Your task to perform on an android device: turn off priority inbox in the gmail app Image 0: 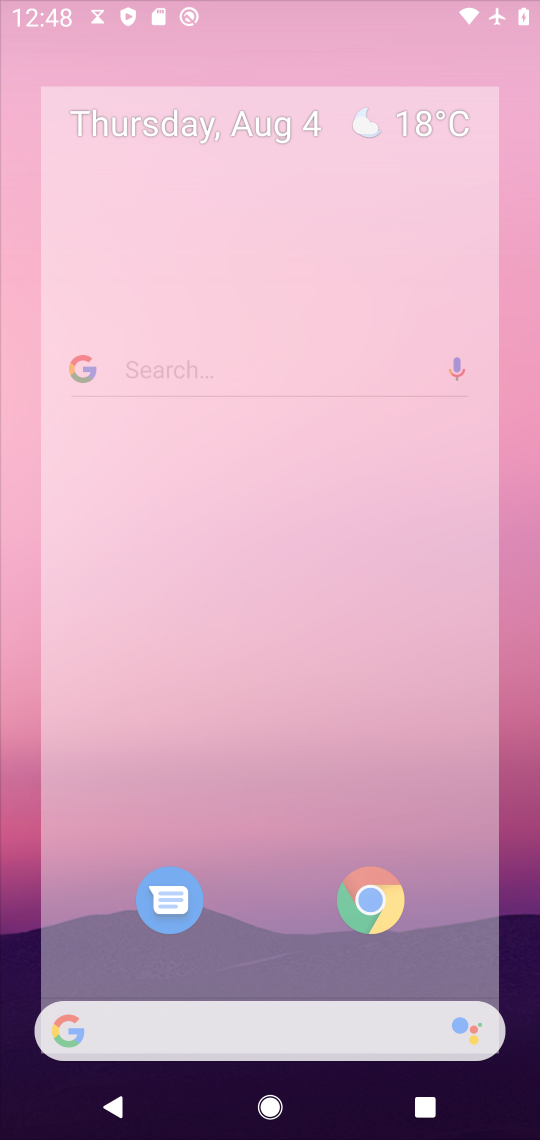
Step 0: press home button
Your task to perform on an android device: turn off priority inbox in the gmail app Image 1: 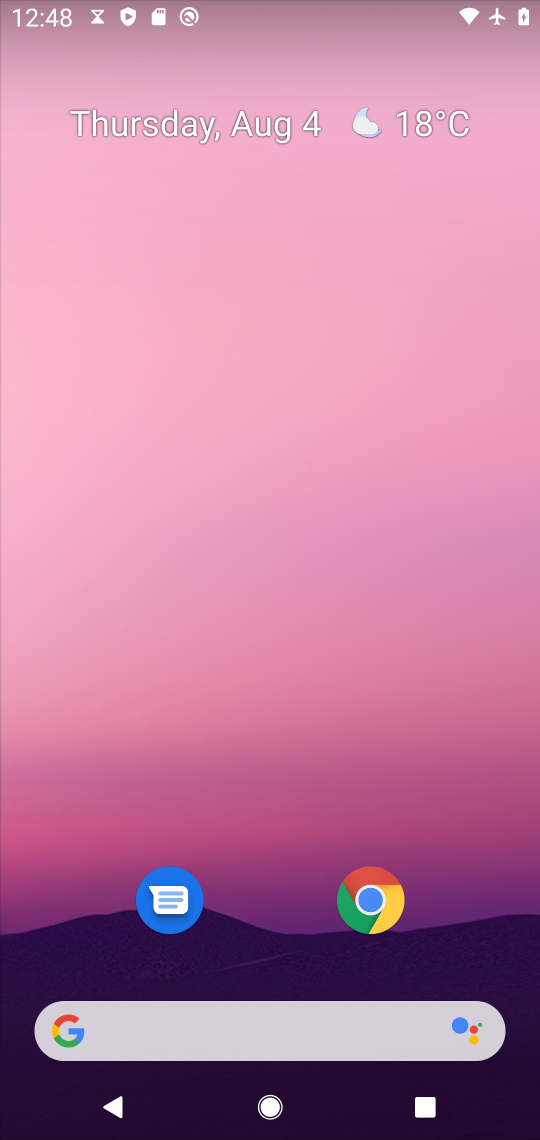
Step 1: drag from (273, 971) to (204, 55)
Your task to perform on an android device: turn off priority inbox in the gmail app Image 2: 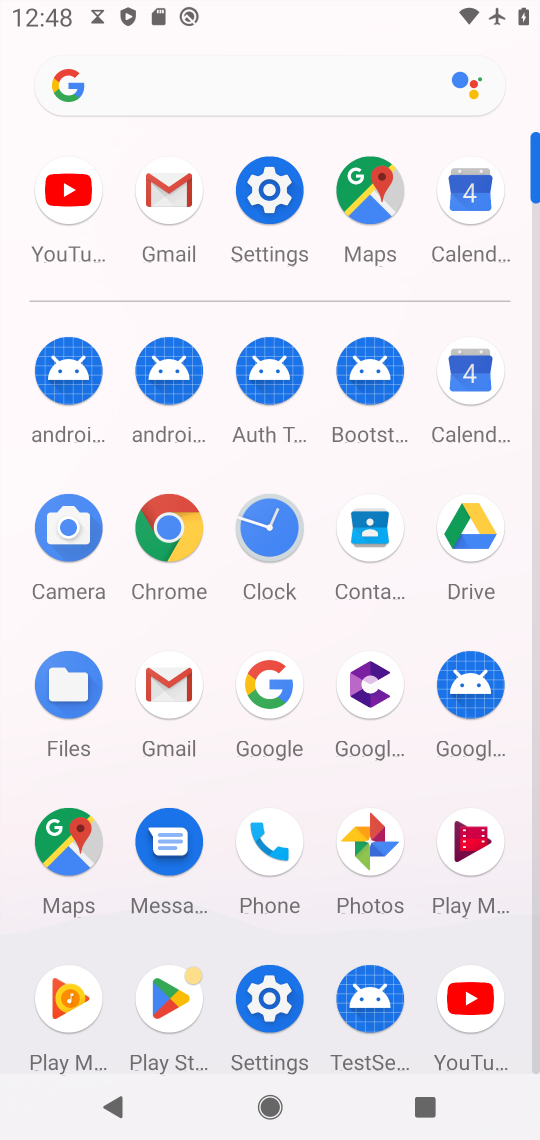
Step 2: click (160, 201)
Your task to perform on an android device: turn off priority inbox in the gmail app Image 3: 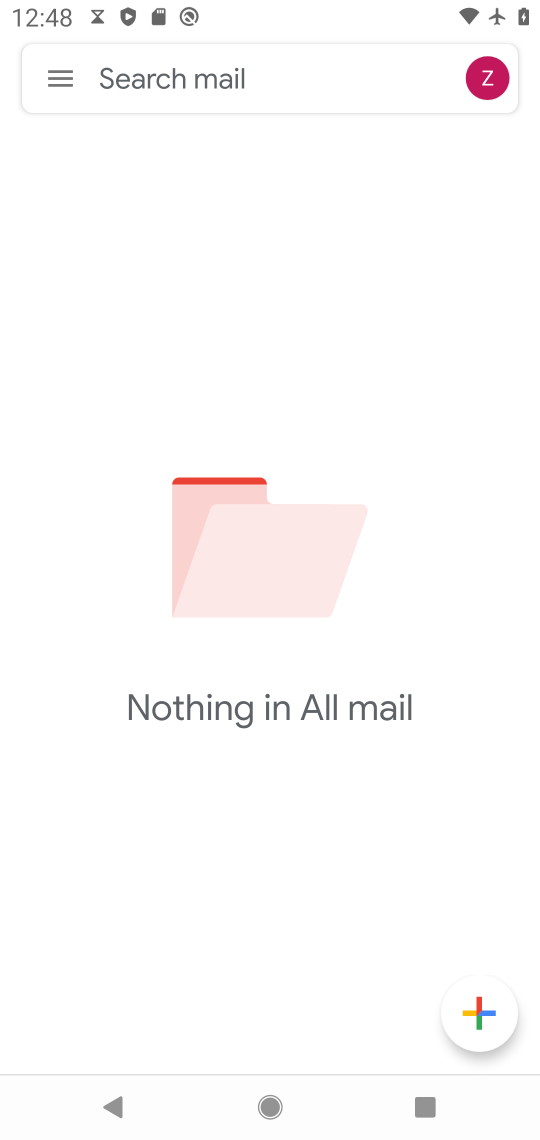
Step 3: click (72, 65)
Your task to perform on an android device: turn off priority inbox in the gmail app Image 4: 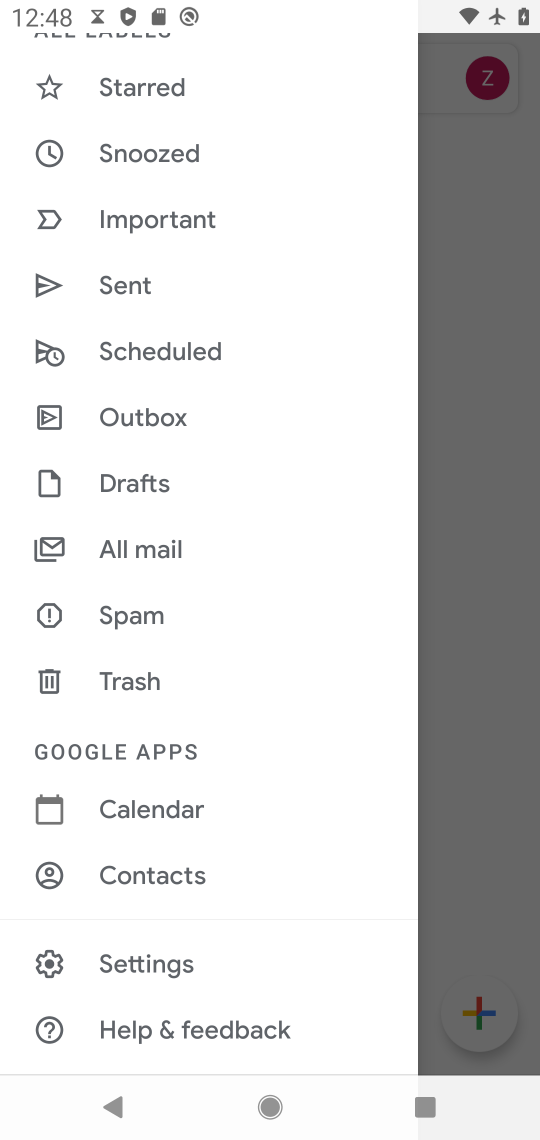
Step 4: drag from (346, 121) to (259, 14)
Your task to perform on an android device: turn off priority inbox in the gmail app Image 5: 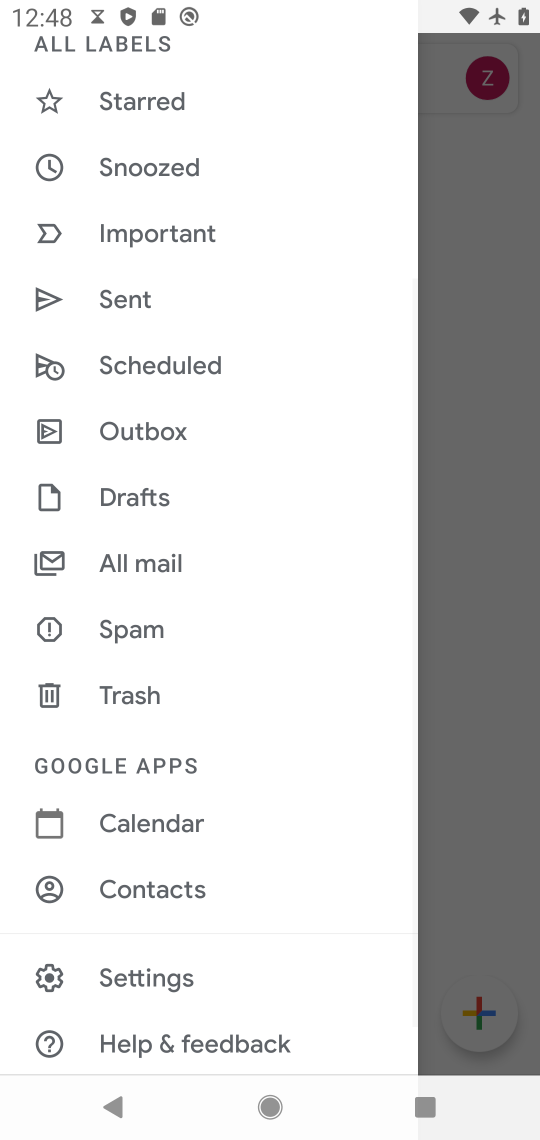
Step 5: click (146, 970)
Your task to perform on an android device: turn off priority inbox in the gmail app Image 6: 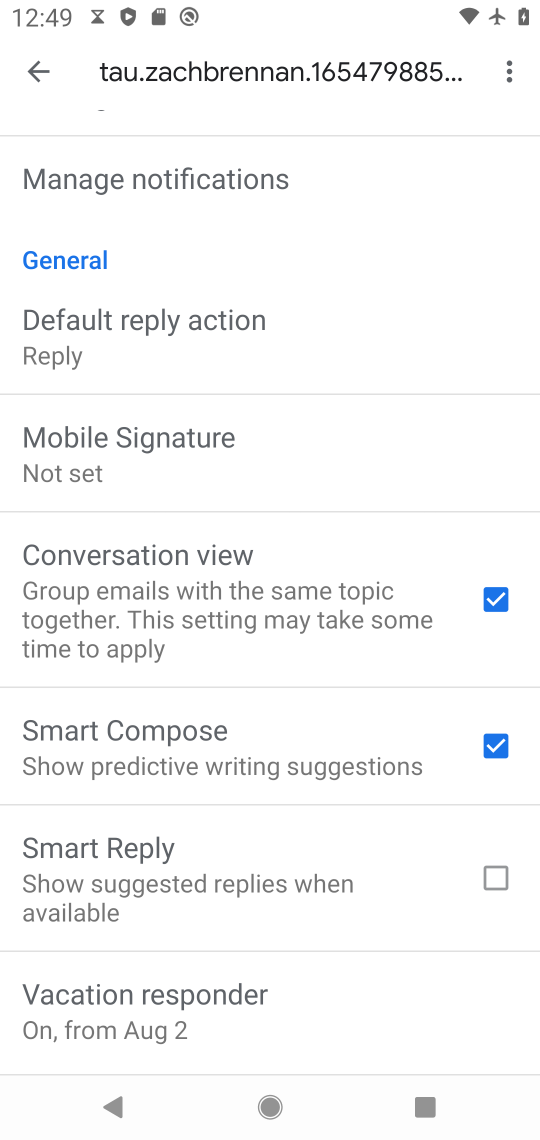
Step 6: drag from (349, 267) to (336, 964)
Your task to perform on an android device: turn off priority inbox in the gmail app Image 7: 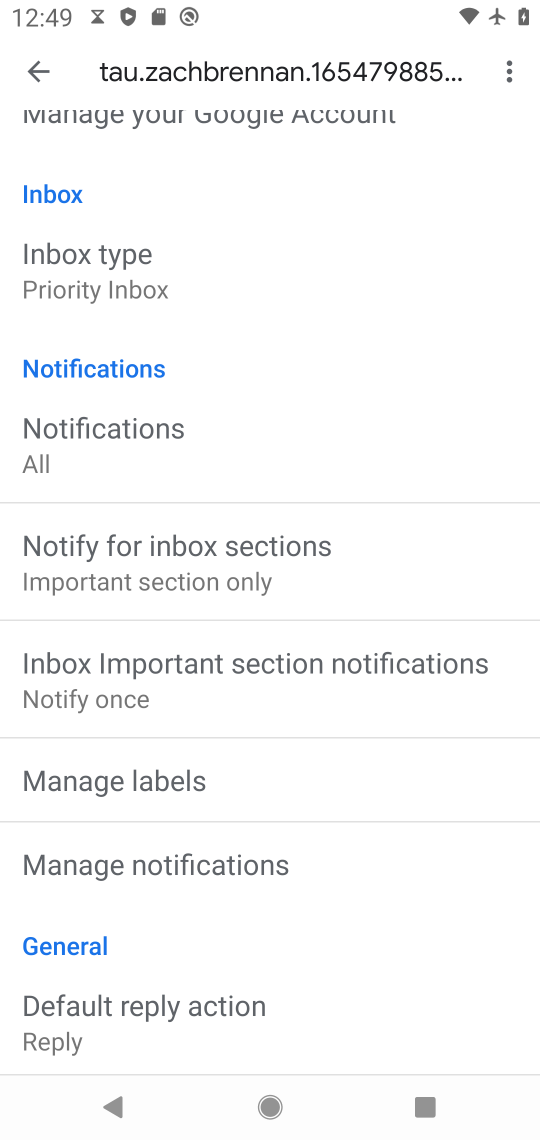
Step 7: click (73, 264)
Your task to perform on an android device: turn off priority inbox in the gmail app Image 8: 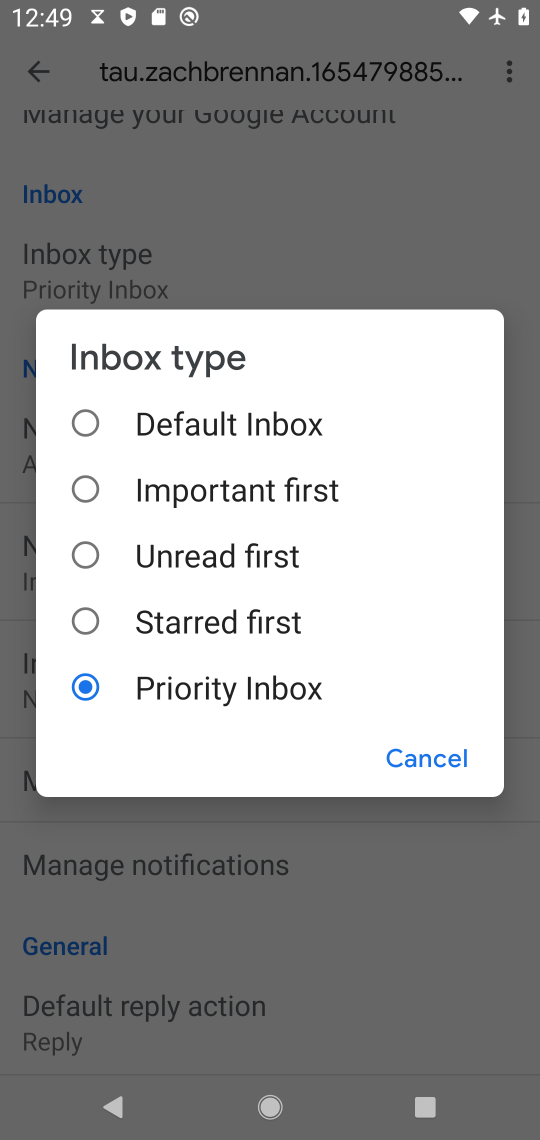
Step 8: click (81, 437)
Your task to perform on an android device: turn off priority inbox in the gmail app Image 9: 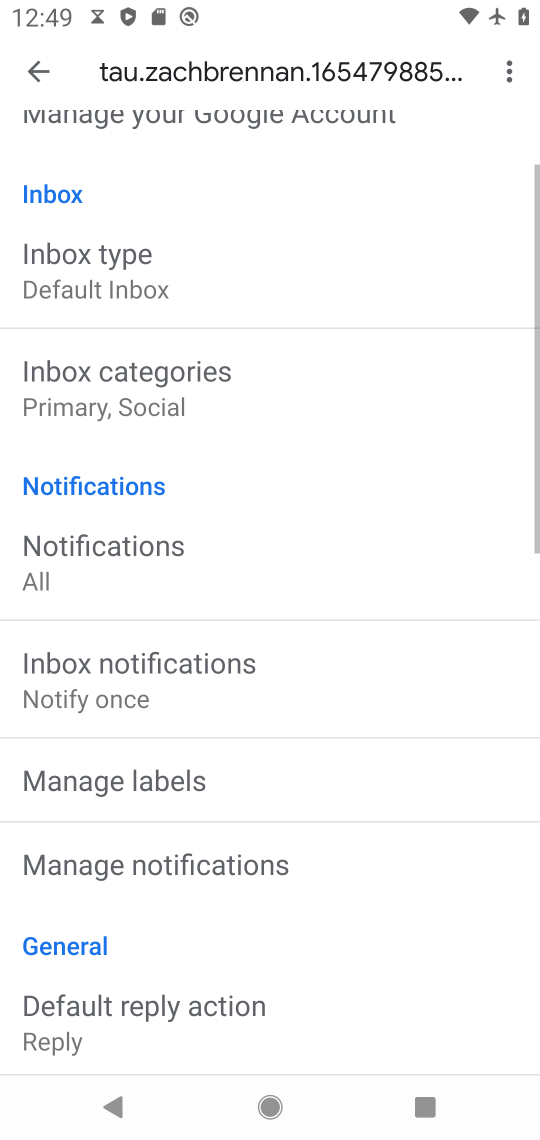
Step 9: task complete